Your task to perform on an android device: toggle notifications settings in the gmail app Image 0: 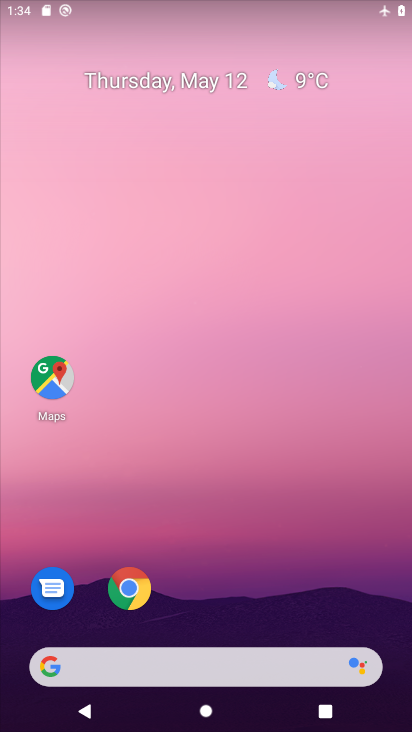
Step 0: drag from (311, 538) to (337, 23)
Your task to perform on an android device: toggle notifications settings in the gmail app Image 1: 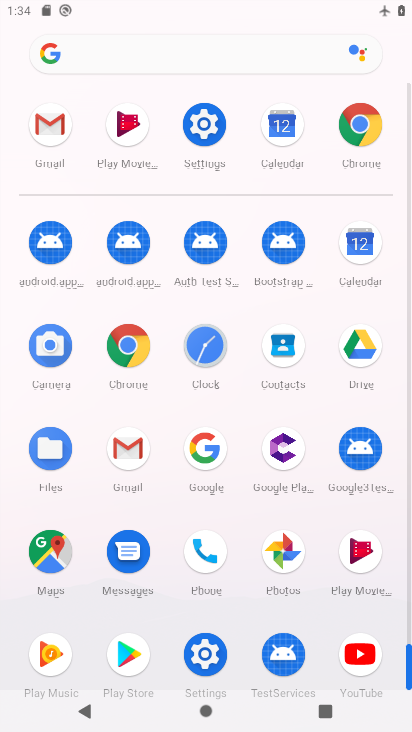
Step 1: click (19, 118)
Your task to perform on an android device: toggle notifications settings in the gmail app Image 2: 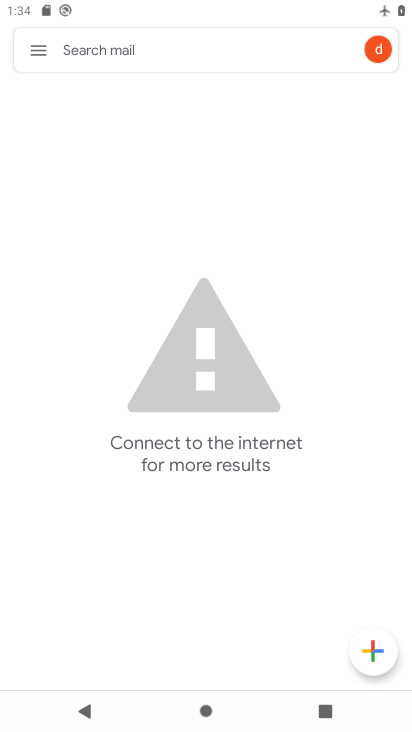
Step 2: click (49, 54)
Your task to perform on an android device: toggle notifications settings in the gmail app Image 3: 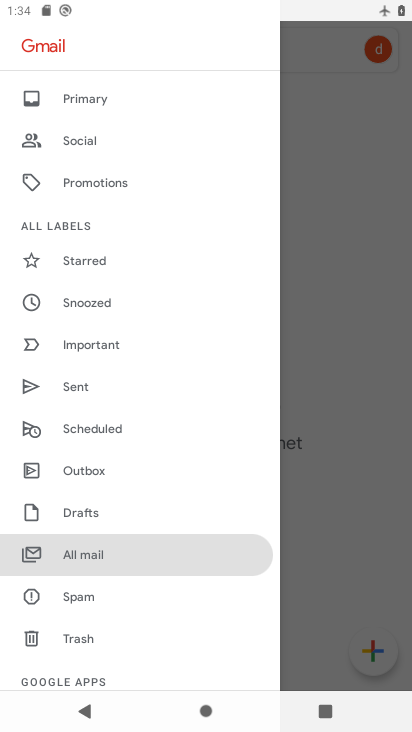
Step 3: drag from (128, 610) to (187, 164)
Your task to perform on an android device: toggle notifications settings in the gmail app Image 4: 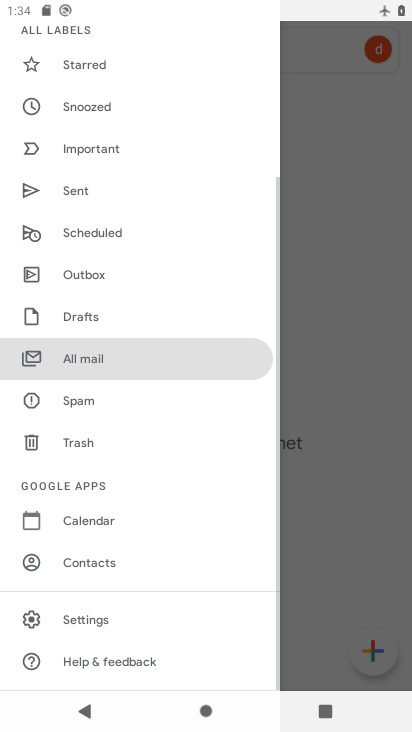
Step 4: click (128, 620)
Your task to perform on an android device: toggle notifications settings in the gmail app Image 5: 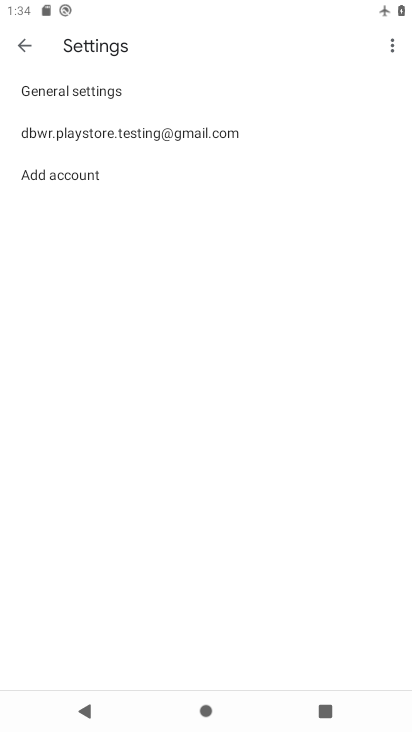
Step 5: click (78, 135)
Your task to perform on an android device: toggle notifications settings in the gmail app Image 6: 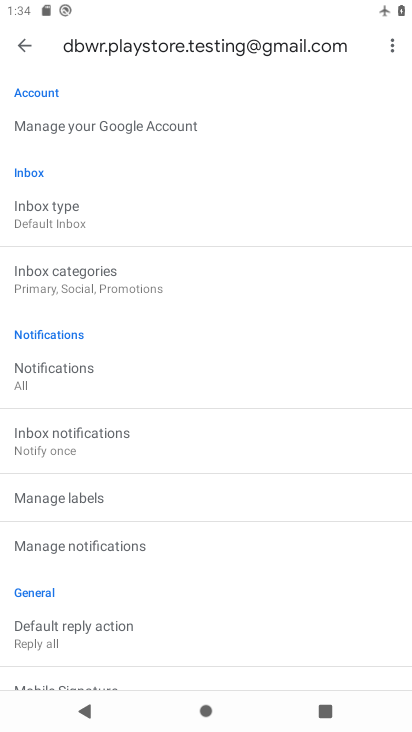
Step 6: drag from (113, 161) to (173, 575)
Your task to perform on an android device: toggle notifications settings in the gmail app Image 7: 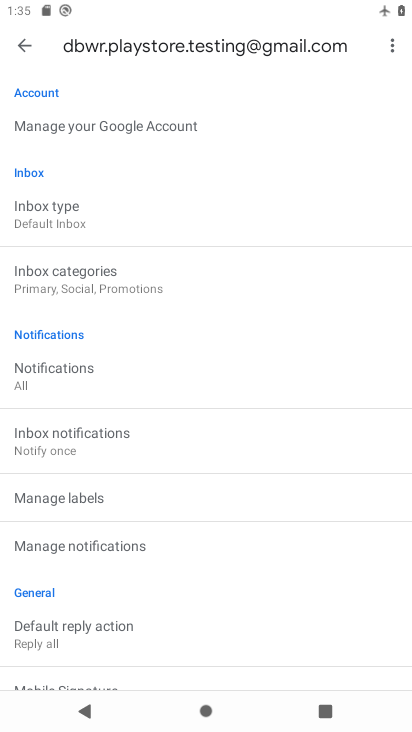
Step 7: click (81, 375)
Your task to perform on an android device: toggle notifications settings in the gmail app Image 8: 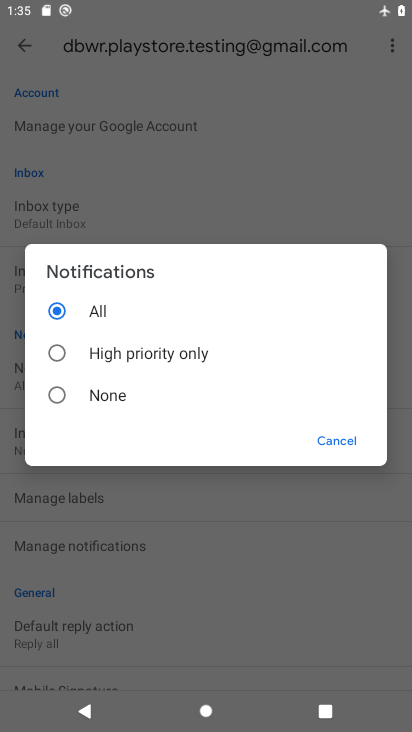
Step 8: click (84, 354)
Your task to perform on an android device: toggle notifications settings in the gmail app Image 9: 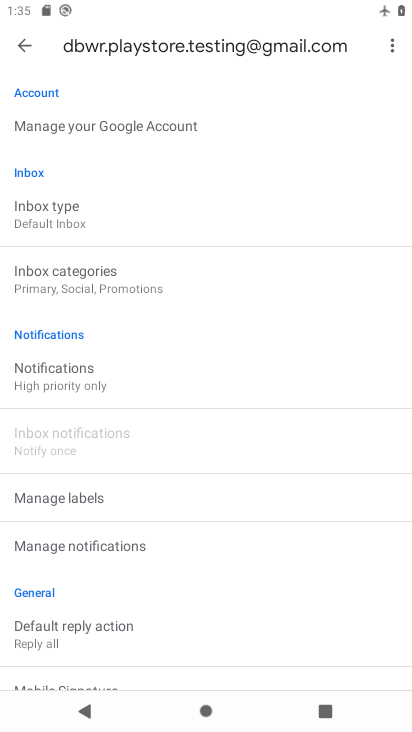
Step 9: task complete